Your task to perform on an android device: toggle notifications settings in the gmail app Image 0: 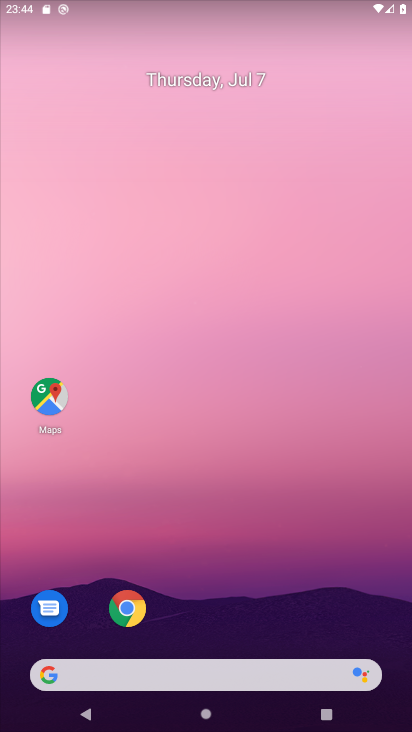
Step 0: drag from (263, 618) to (235, 295)
Your task to perform on an android device: toggle notifications settings in the gmail app Image 1: 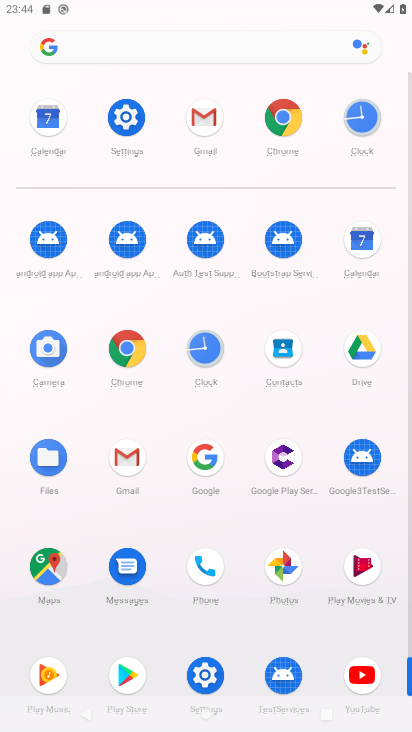
Step 1: click (129, 449)
Your task to perform on an android device: toggle notifications settings in the gmail app Image 2: 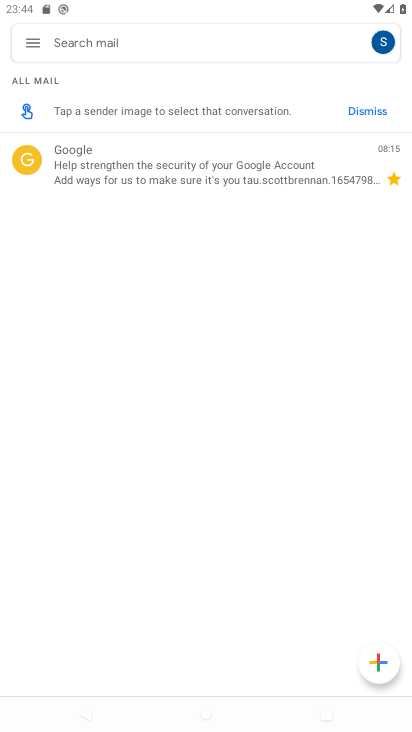
Step 2: click (38, 36)
Your task to perform on an android device: toggle notifications settings in the gmail app Image 3: 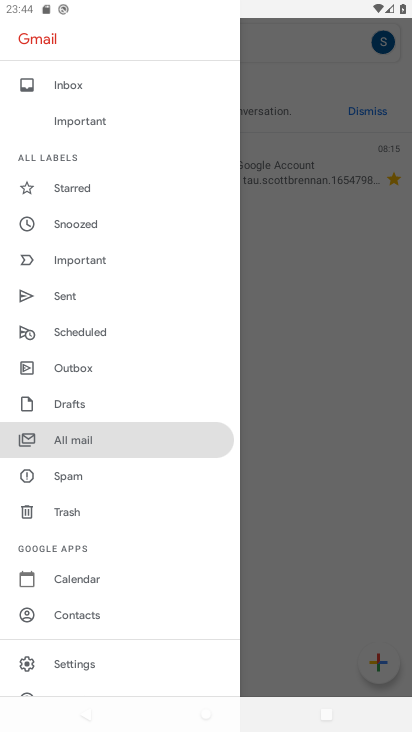
Step 3: drag from (98, 638) to (120, 300)
Your task to perform on an android device: toggle notifications settings in the gmail app Image 4: 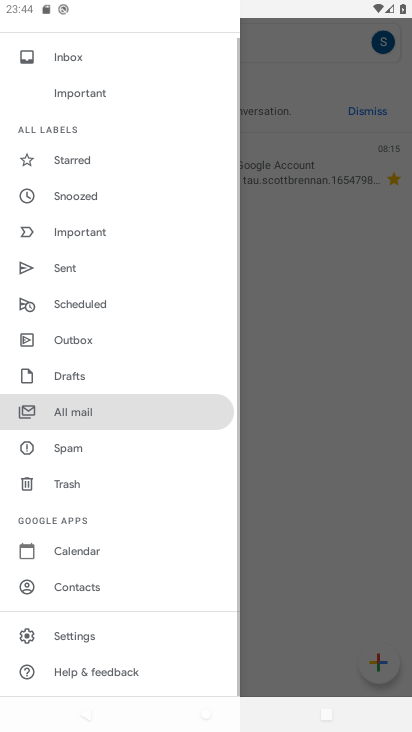
Step 4: click (78, 635)
Your task to perform on an android device: toggle notifications settings in the gmail app Image 5: 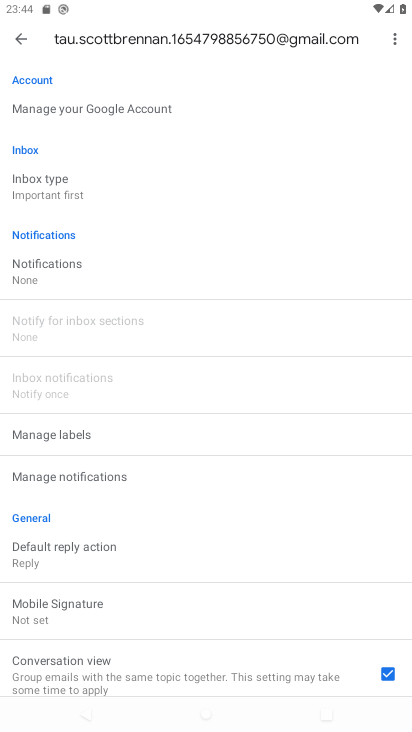
Step 5: click (79, 280)
Your task to perform on an android device: toggle notifications settings in the gmail app Image 6: 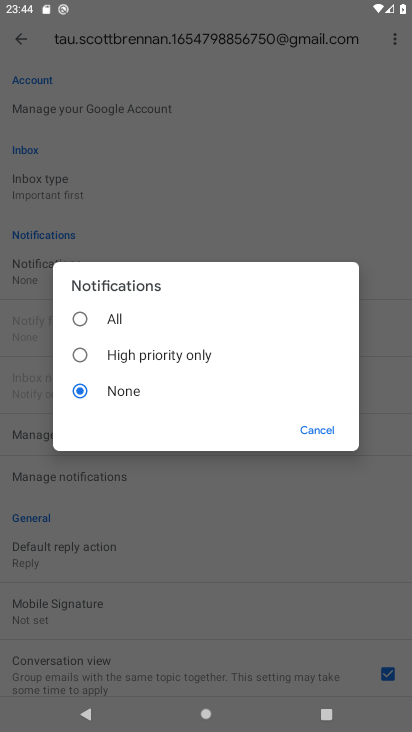
Step 6: click (91, 310)
Your task to perform on an android device: toggle notifications settings in the gmail app Image 7: 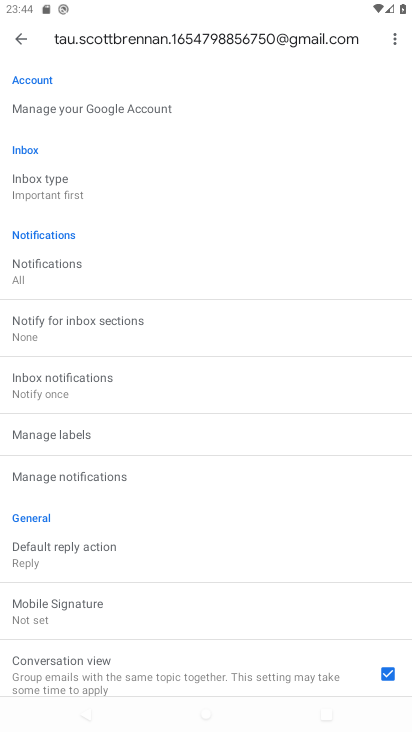
Step 7: task complete